Your task to perform on an android device: toggle improve location accuracy Image 0: 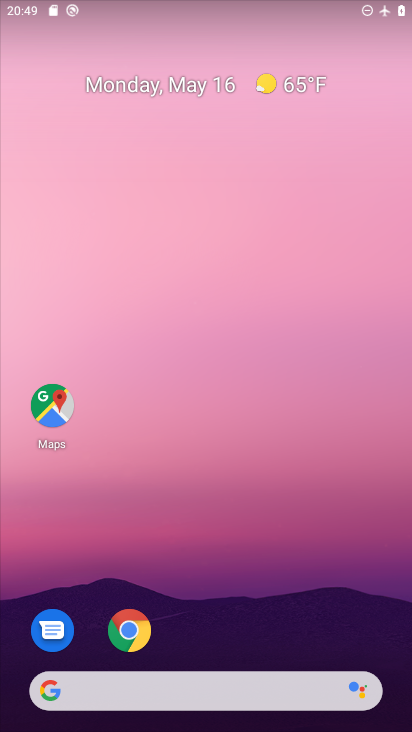
Step 0: drag from (207, 626) to (223, 200)
Your task to perform on an android device: toggle improve location accuracy Image 1: 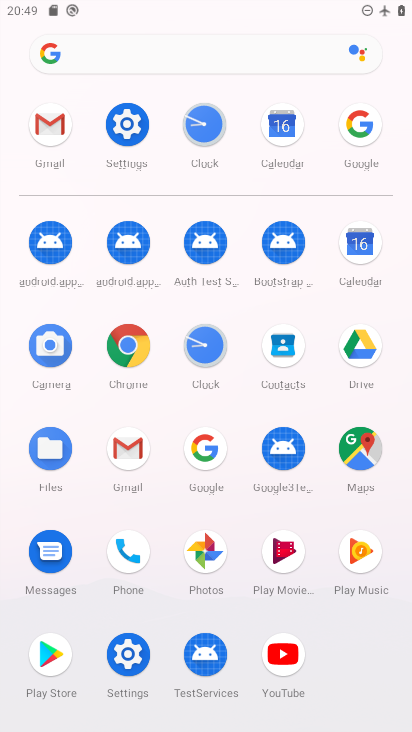
Step 1: click (116, 126)
Your task to perform on an android device: toggle improve location accuracy Image 2: 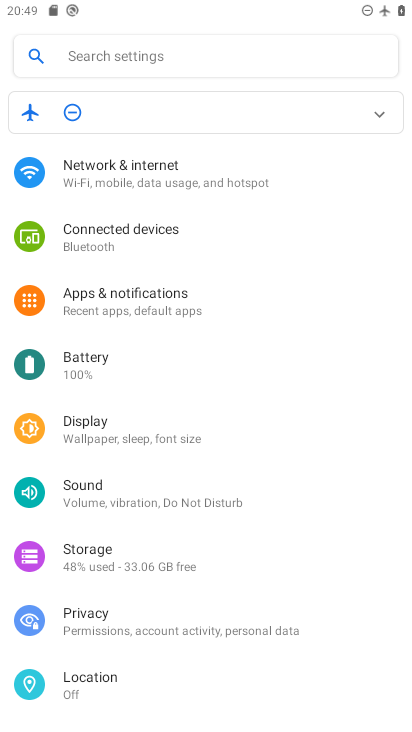
Step 2: click (116, 666)
Your task to perform on an android device: toggle improve location accuracy Image 3: 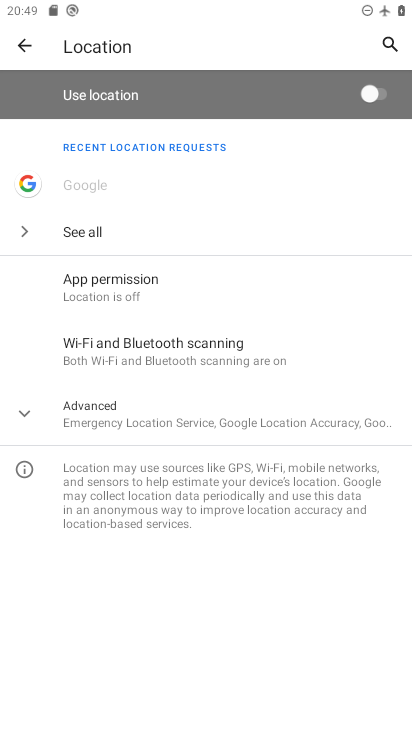
Step 3: click (152, 406)
Your task to perform on an android device: toggle improve location accuracy Image 4: 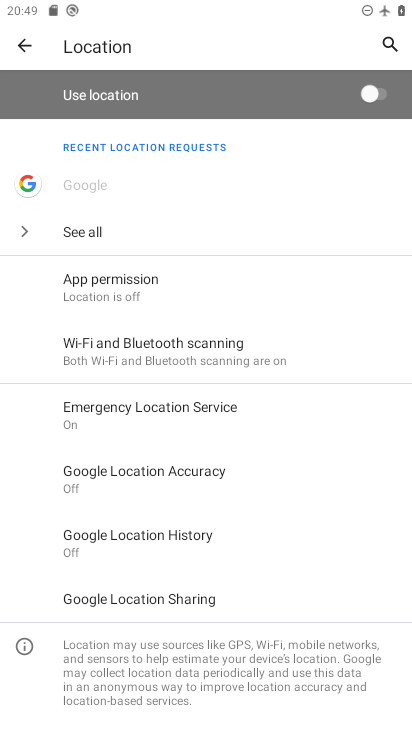
Step 4: click (159, 483)
Your task to perform on an android device: toggle improve location accuracy Image 5: 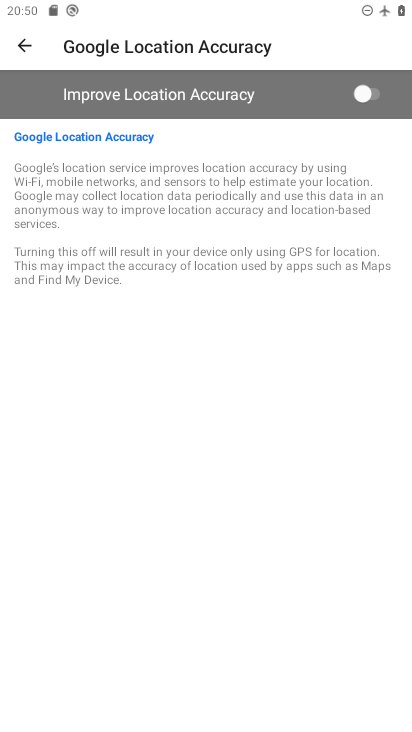
Step 5: click (369, 90)
Your task to perform on an android device: toggle improve location accuracy Image 6: 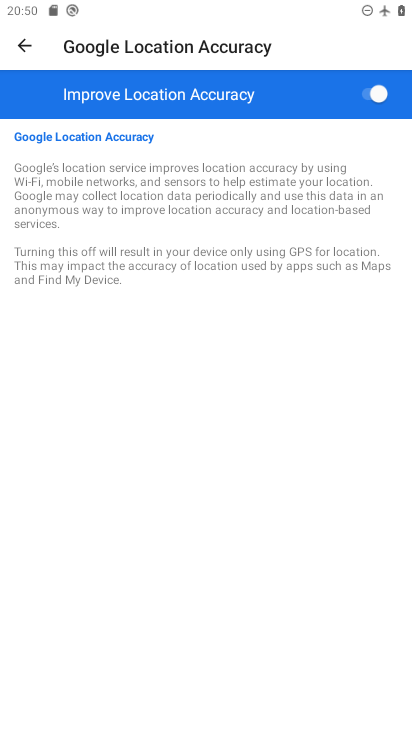
Step 6: task complete